Your task to perform on an android device: Play the new Selena Gomez video on YouTube Image 0: 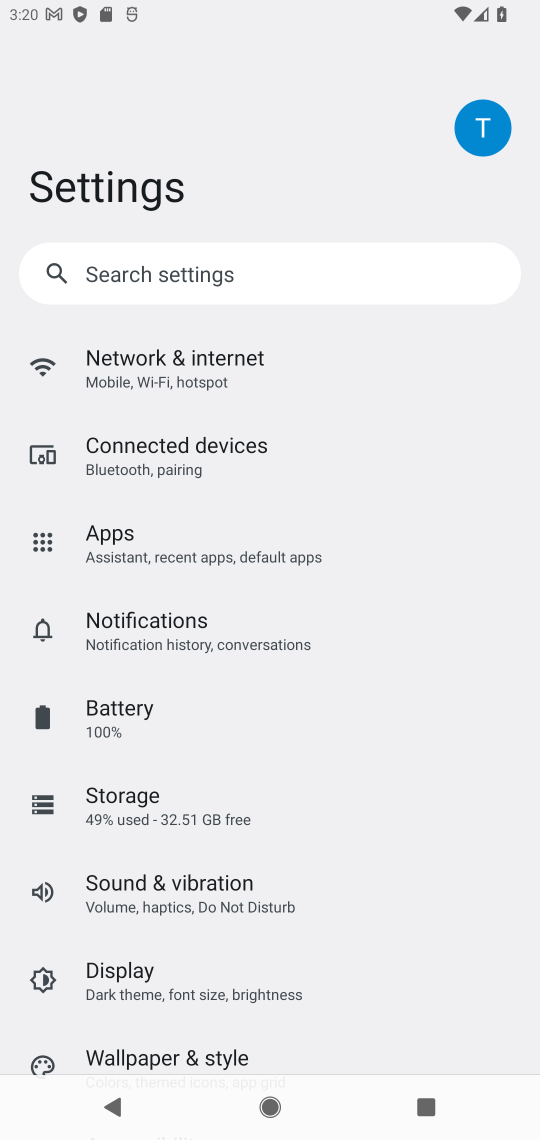
Step 0: press home button
Your task to perform on an android device: Play the new Selena Gomez video on YouTube Image 1: 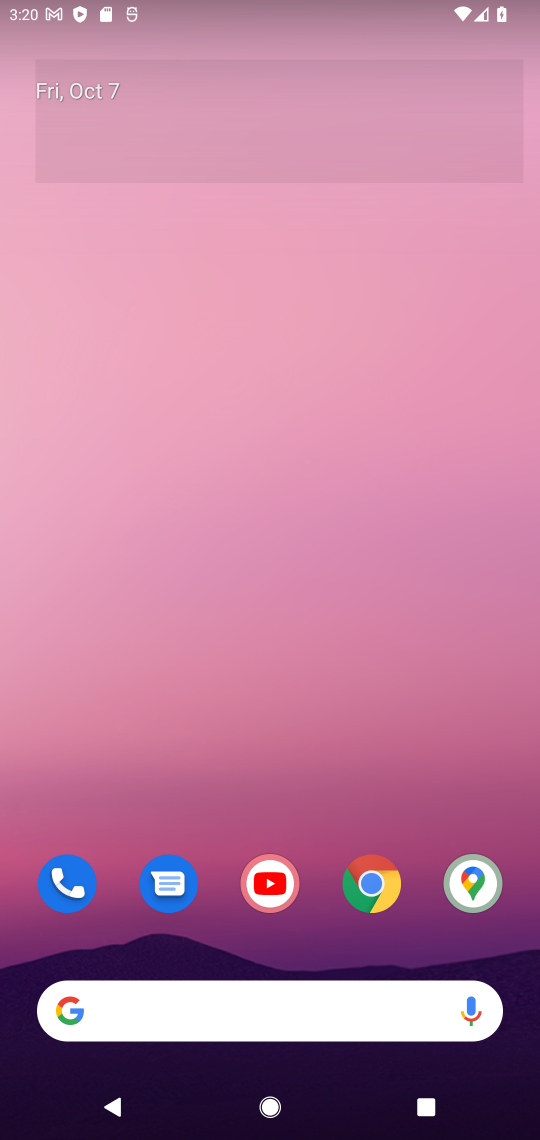
Step 1: click (283, 901)
Your task to perform on an android device: Play the new Selena Gomez video on YouTube Image 2: 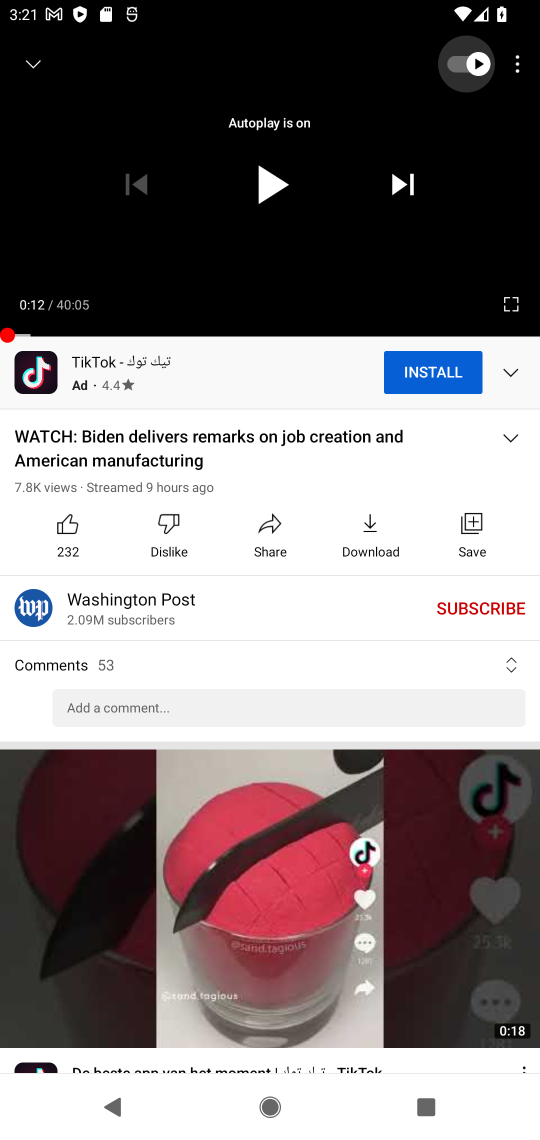
Step 2: click (39, 71)
Your task to perform on an android device: Play the new Selena Gomez video on YouTube Image 3: 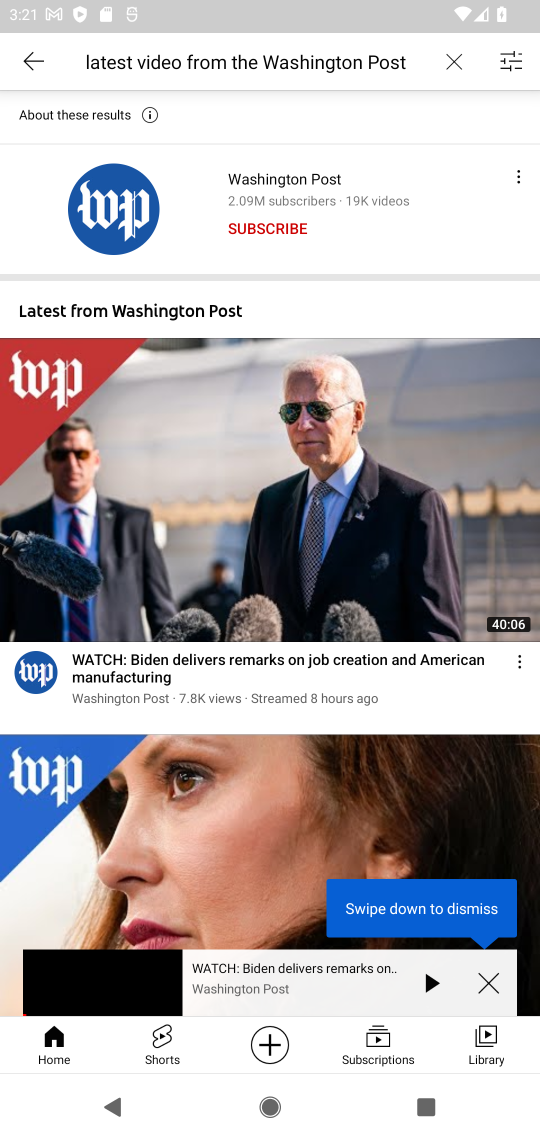
Step 3: click (463, 50)
Your task to perform on an android device: Play the new Selena Gomez video on YouTube Image 4: 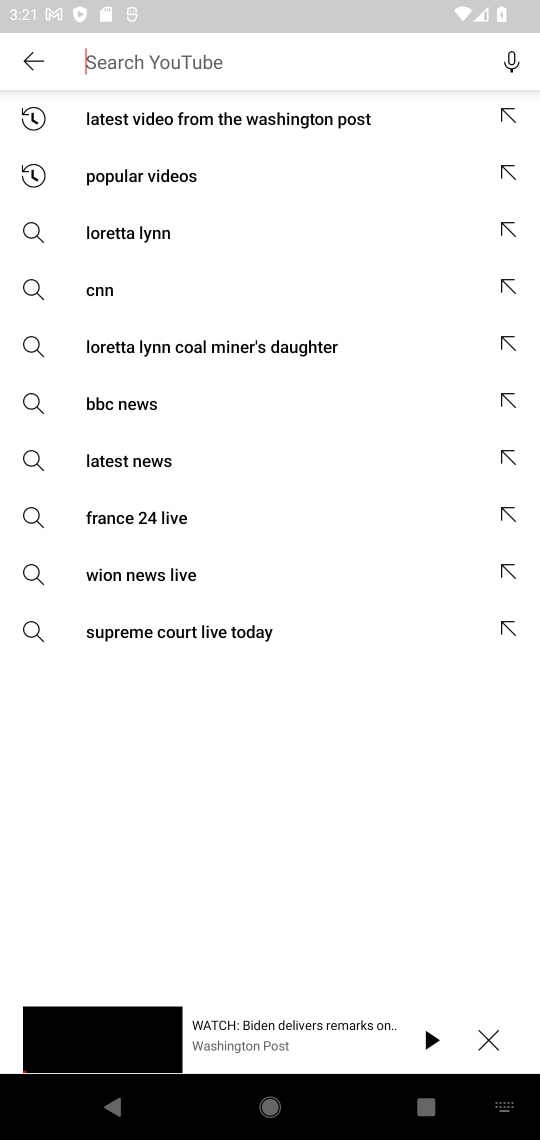
Step 4: click (309, 62)
Your task to perform on an android device: Play the new Selena Gomez video on YouTube Image 5: 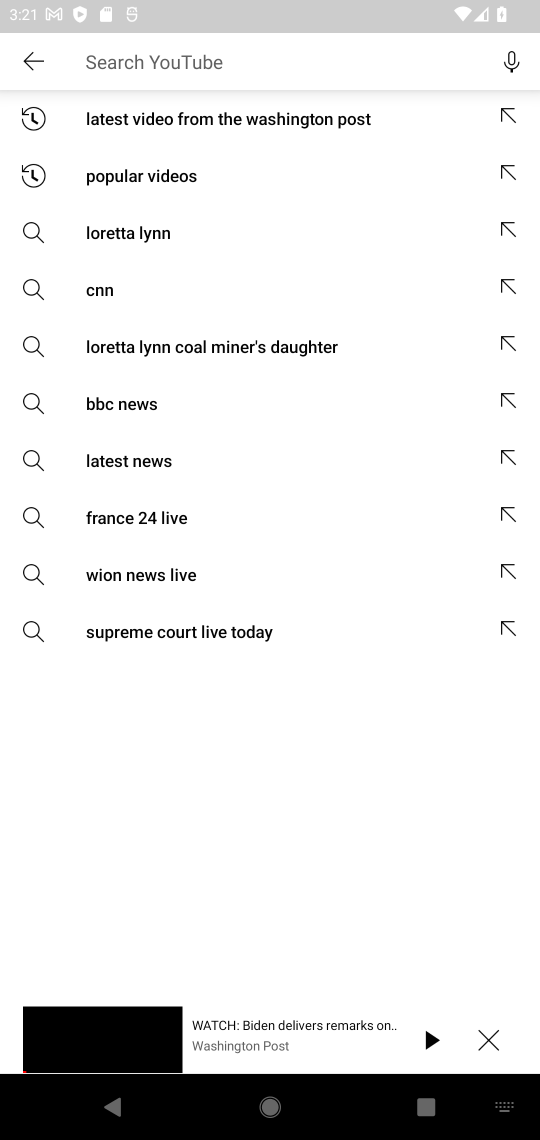
Step 5: type "selena gomez"
Your task to perform on an android device: Play the new Selena Gomez video on YouTube Image 6: 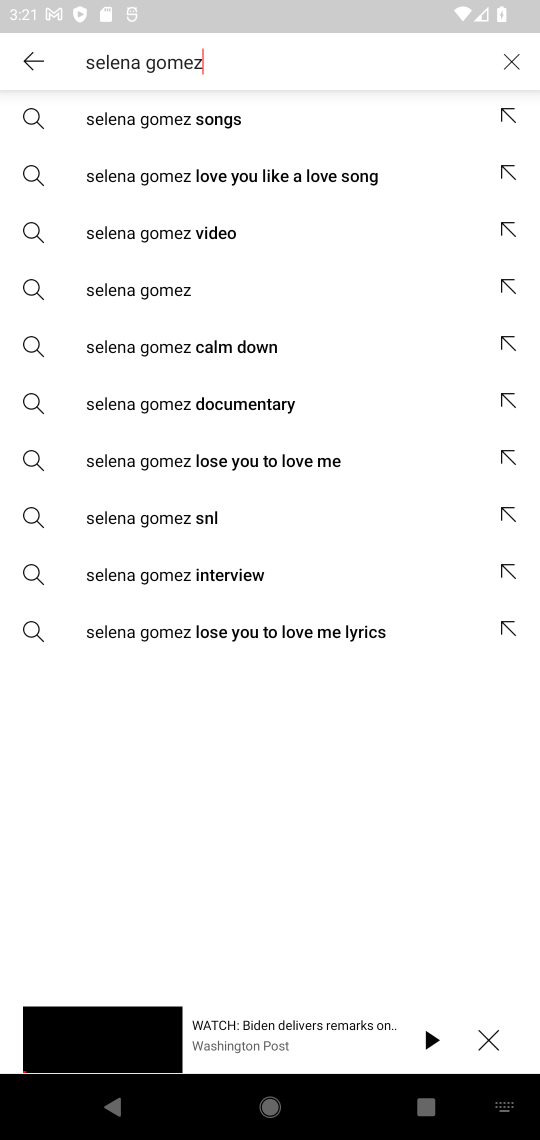
Step 6: click (174, 289)
Your task to perform on an android device: Play the new Selena Gomez video on YouTube Image 7: 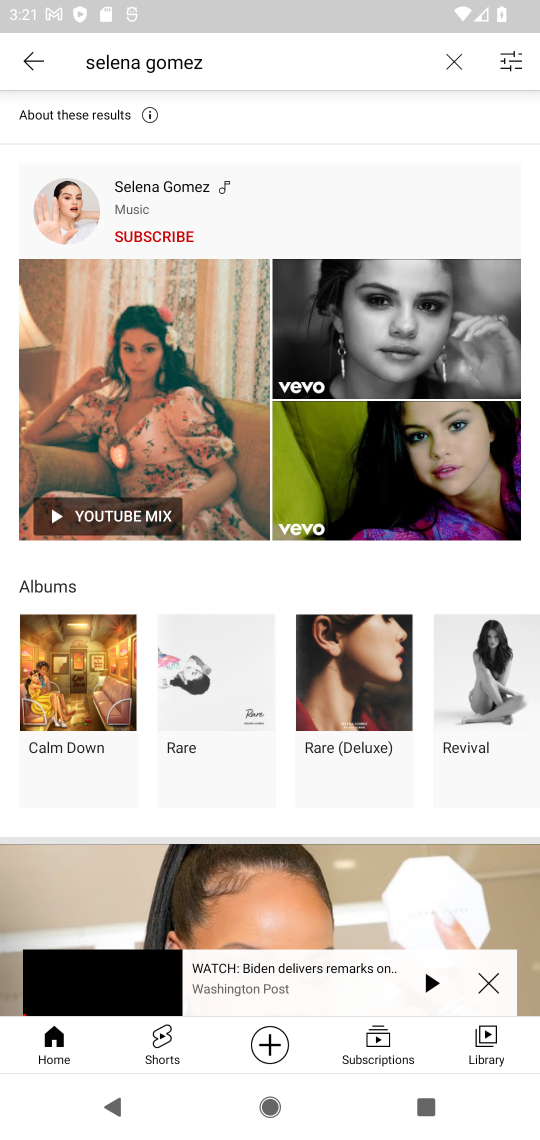
Step 7: drag from (259, 807) to (112, 180)
Your task to perform on an android device: Play the new Selena Gomez video on YouTube Image 8: 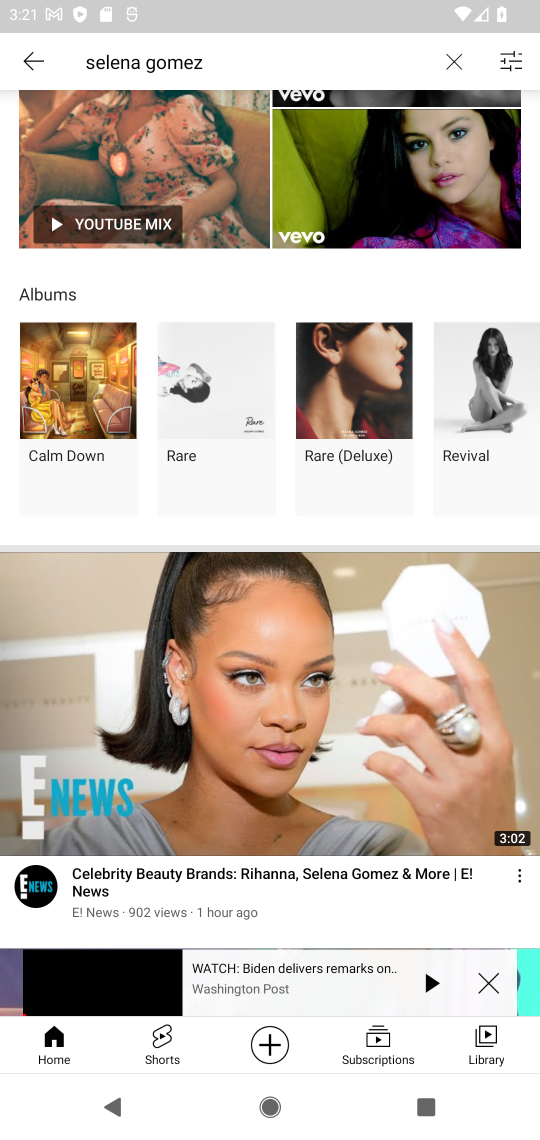
Step 8: click (344, 48)
Your task to perform on an android device: Play the new Selena Gomez video on YouTube Image 9: 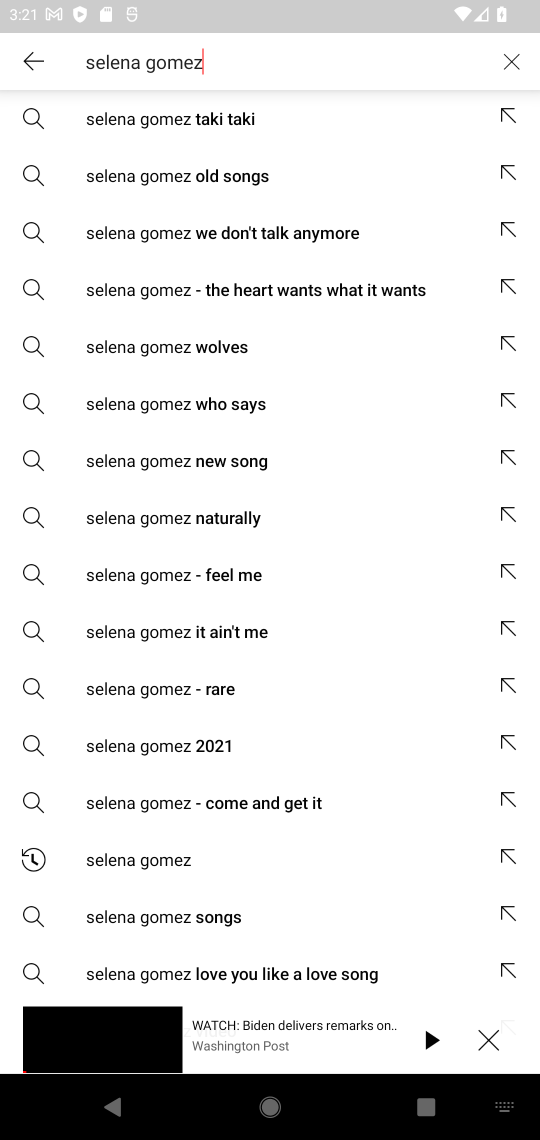
Step 9: type " video"
Your task to perform on an android device: Play the new Selena Gomez video on YouTube Image 10: 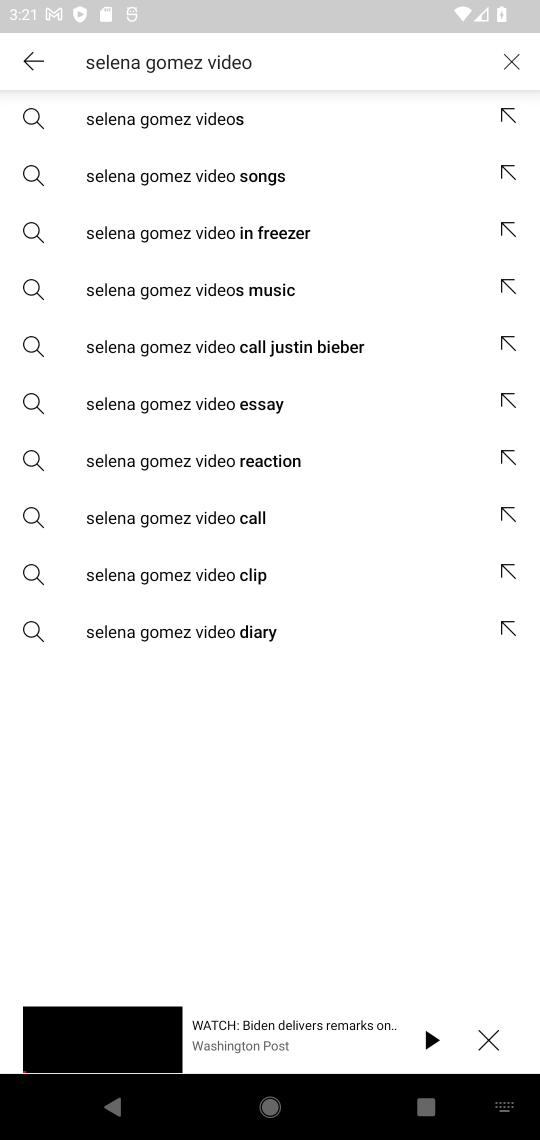
Step 10: click (213, 118)
Your task to perform on an android device: Play the new Selena Gomez video on YouTube Image 11: 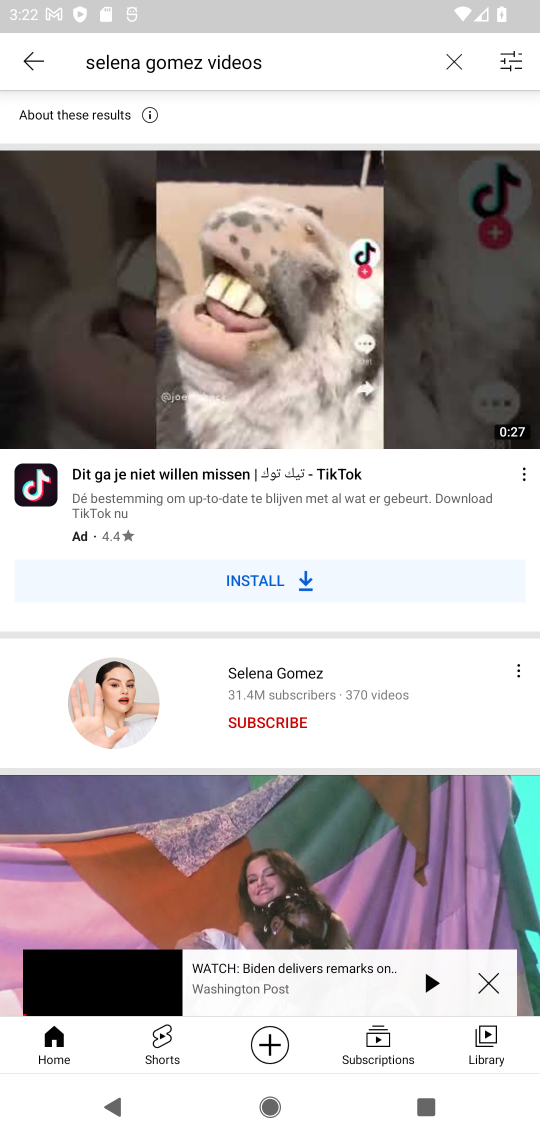
Step 11: click (64, 707)
Your task to perform on an android device: Play the new Selena Gomez video on YouTube Image 12: 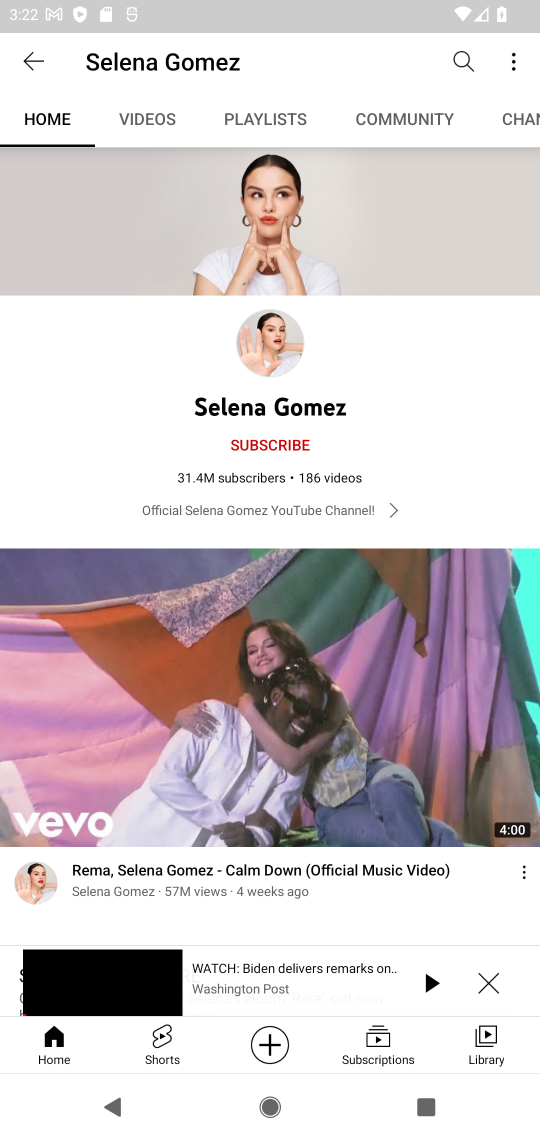
Step 12: click (129, 108)
Your task to perform on an android device: Play the new Selena Gomez video on YouTube Image 13: 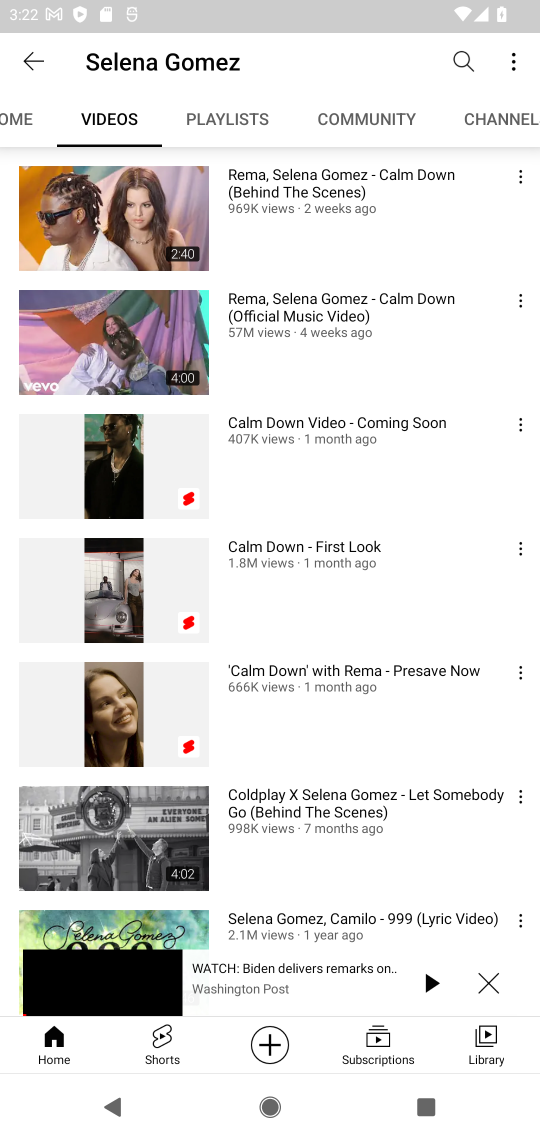
Step 13: click (102, 225)
Your task to perform on an android device: Play the new Selena Gomez video on YouTube Image 14: 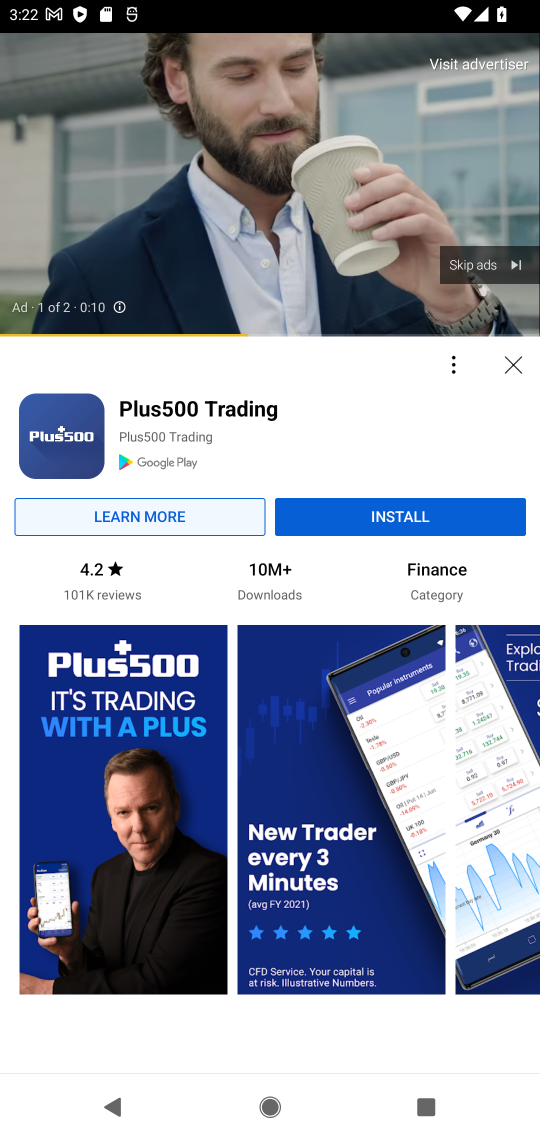
Step 14: click (463, 270)
Your task to perform on an android device: Play the new Selena Gomez video on YouTube Image 15: 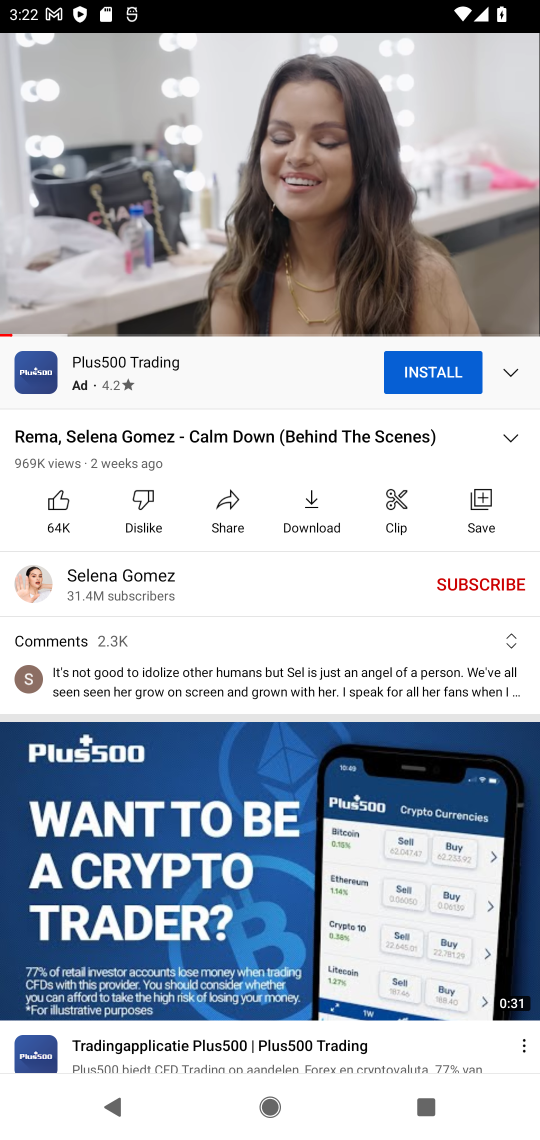
Step 15: task complete